Your task to perform on an android device: change your default location settings in chrome Image 0: 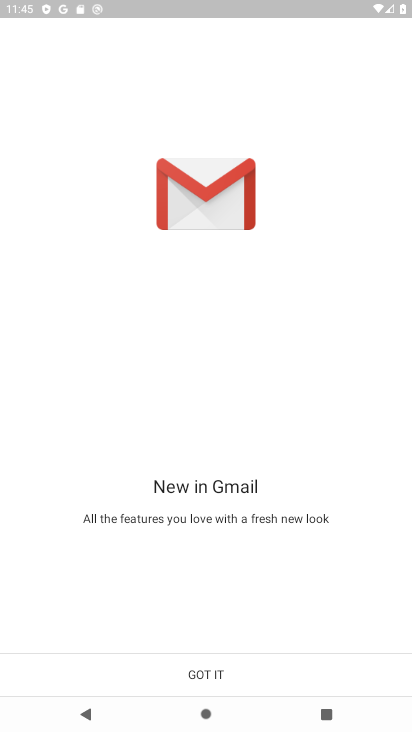
Step 0: click (200, 673)
Your task to perform on an android device: change your default location settings in chrome Image 1: 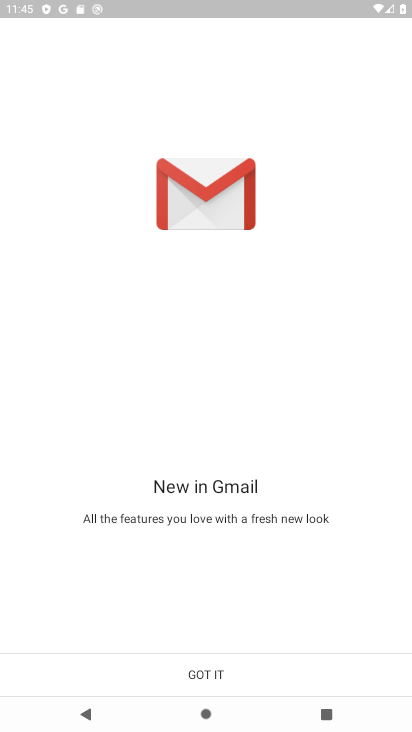
Step 1: press home button
Your task to perform on an android device: change your default location settings in chrome Image 2: 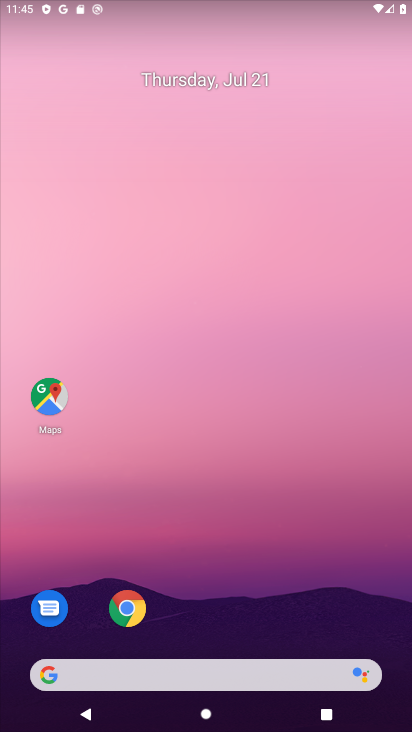
Step 2: click (126, 608)
Your task to perform on an android device: change your default location settings in chrome Image 3: 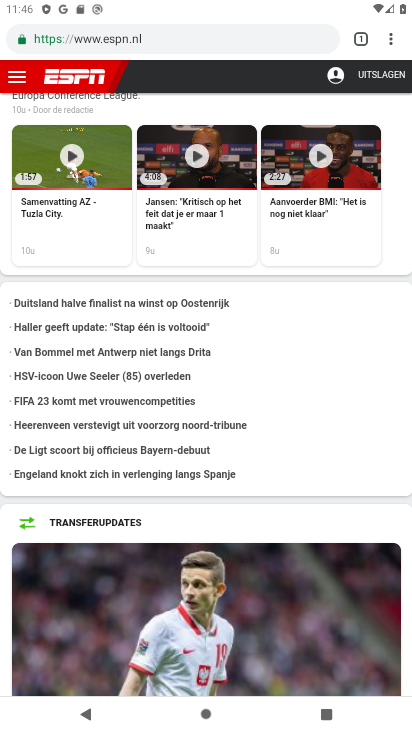
Step 3: click (386, 32)
Your task to perform on an android device: change your default location settings in chrome Image 4: 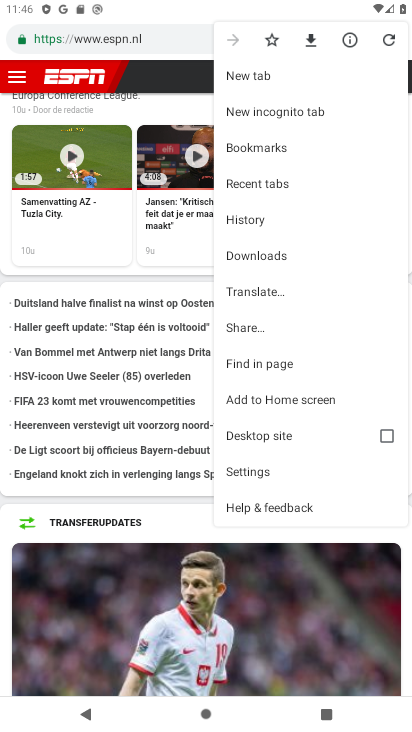
Step 4: click (276, 472)
Your task to perform on an android device: change your default location settings in chrome Image 5: 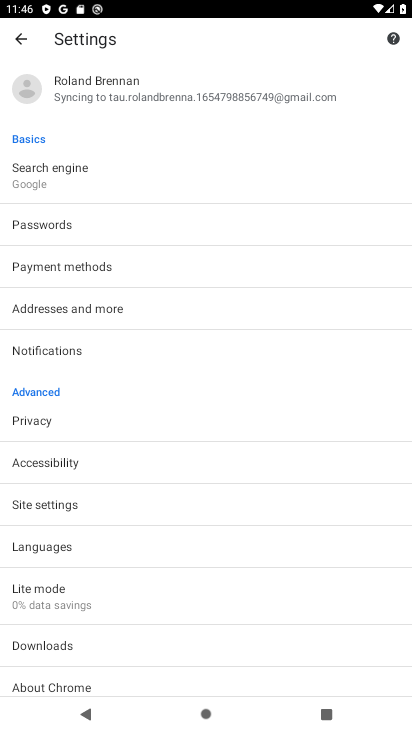
Step 5: click (86, 505)
Your task to perform on an android device: change your default location settings in chrome Image 6: 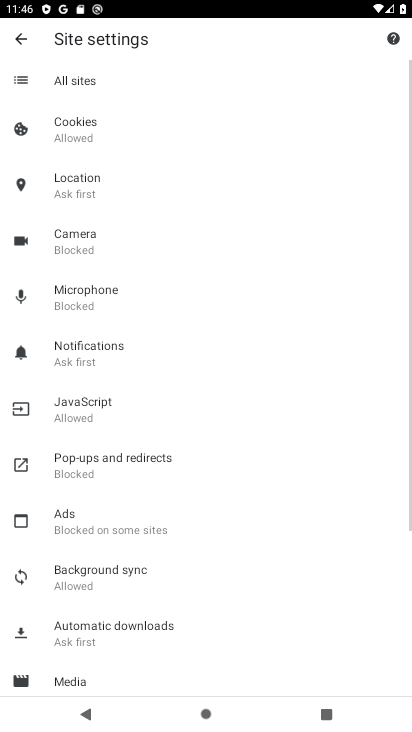
Step 6: click (116, 177)
Your task to perform on an android device: change your default location settings in chrome Image 7: 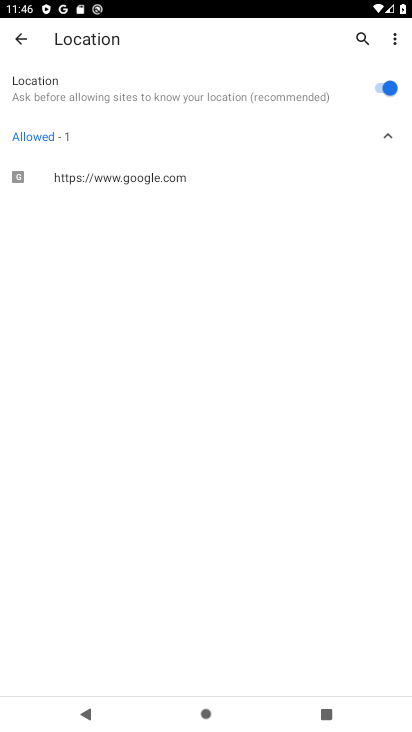
Step 7: click (379, 86)
Your task to perform on an android device: change your default location settings in chrome Image 8: 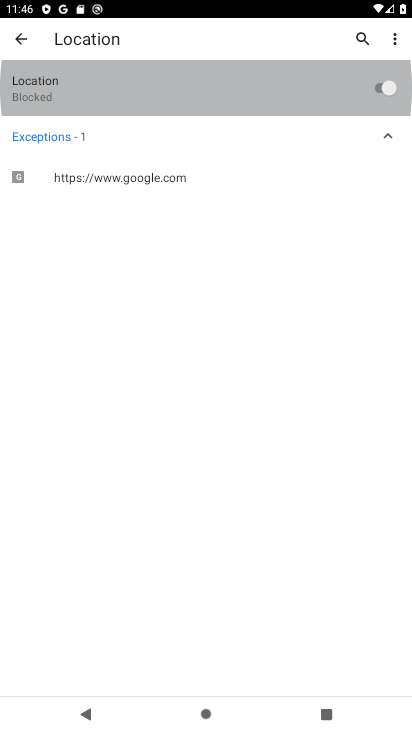
Step 8: task complete